Your task to perform on an android device: clear all cookies in the chrome app Image 0: 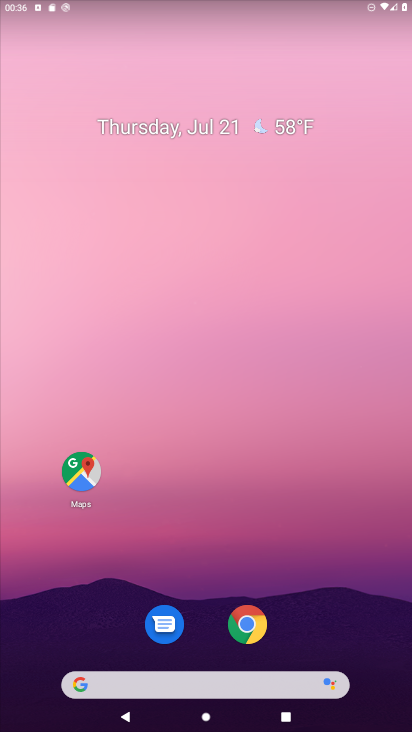
Step 0: click (254, 623)
Your task to perform on an android device: clear all cookies in the chrome app Image 1: 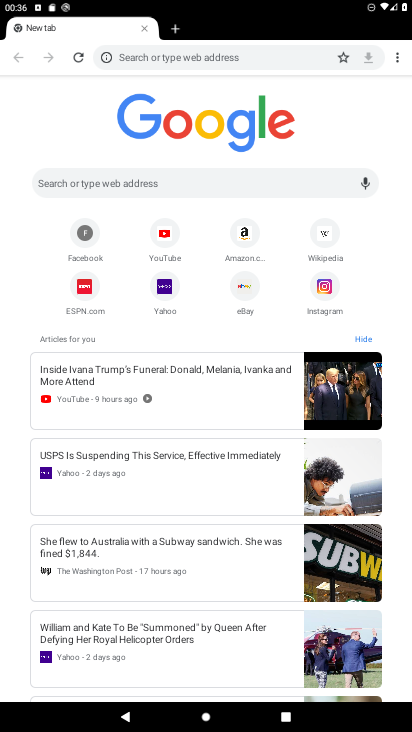
Step 1: click (395, 58)
Your task to perform on an android device: clear all cookies in the chrome app Image 2: 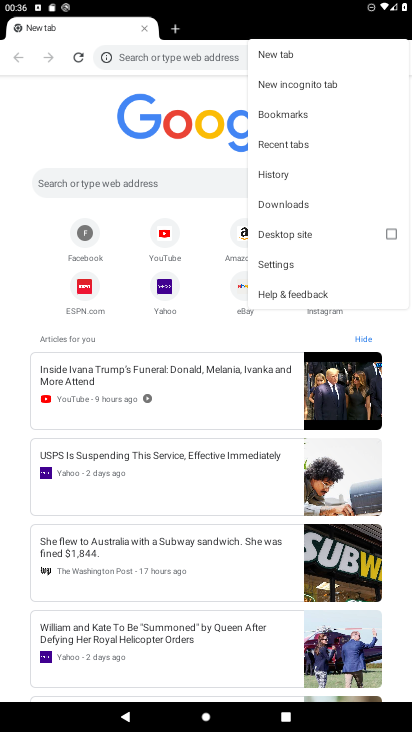
Step 2: click (302, 171)
Your task to perform on an android device: clear all cookies in the chrome app Image 3: 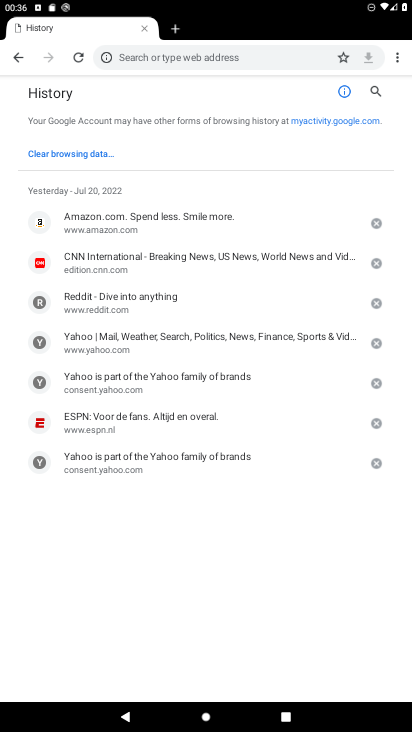
Step 3: click (64, 151)
Your task to perform on an android device: clear all cookies in the chrome app Image 4: 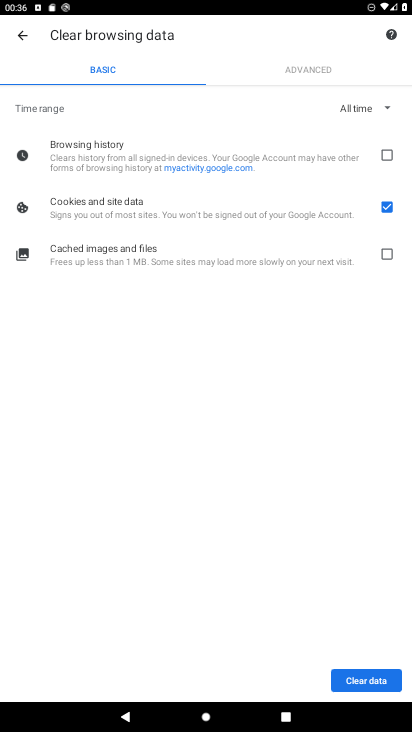
Step 4: click (384, 161)
Your task to perform on an android device: clear all cookies in the chrome app Image 5: 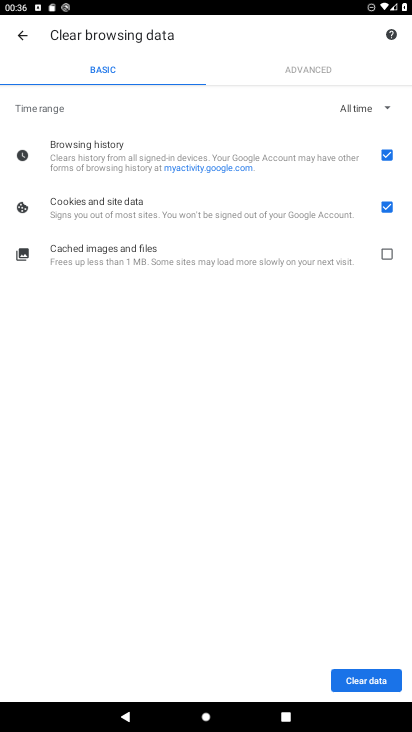
Step 5: click (390, 256)
Your task to perform on an android device: clear all cookies in the chrome app Image 6: 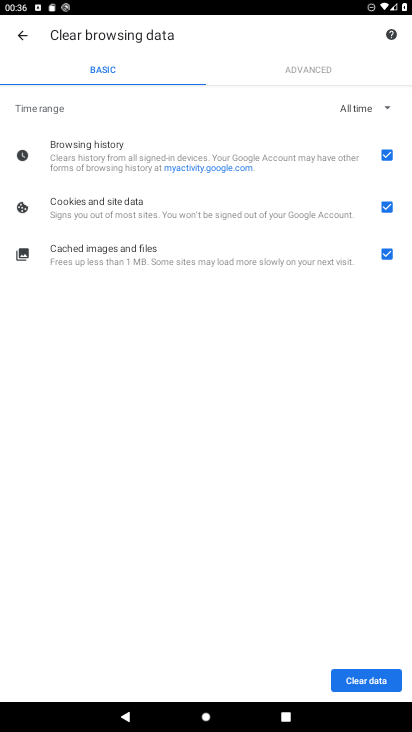
Step 6: click (366, 680)
Your task to perform on an android device: clear all cookies in the chrome app Image 7: 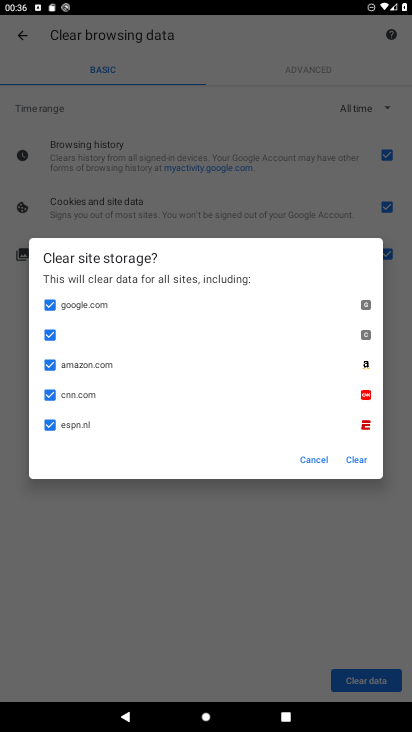
Step 7: click (365, 454)
Your task to perform on an android device: clear all cookies in the chrome app Image 8: 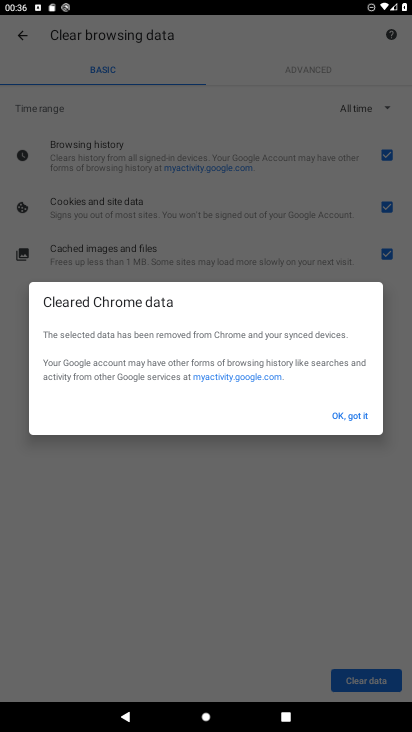
Step 8: click (355, 405)
Your task to perform on an android device: clear all cookies in the chrome app Image 9: 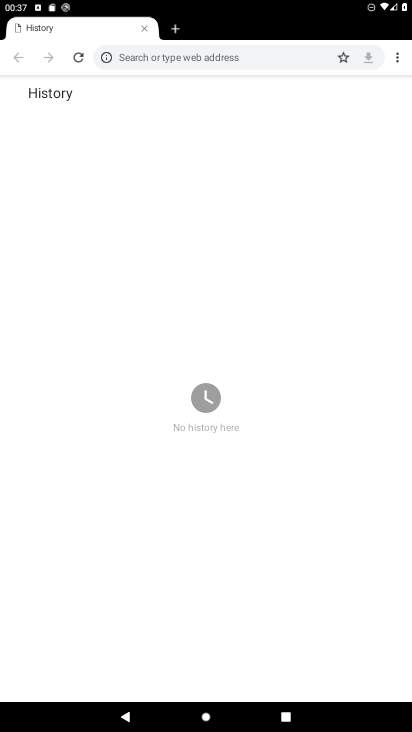
Step 9: task complete